Your task to perform on an android device: clear all cookies in the chrome app Image 0: 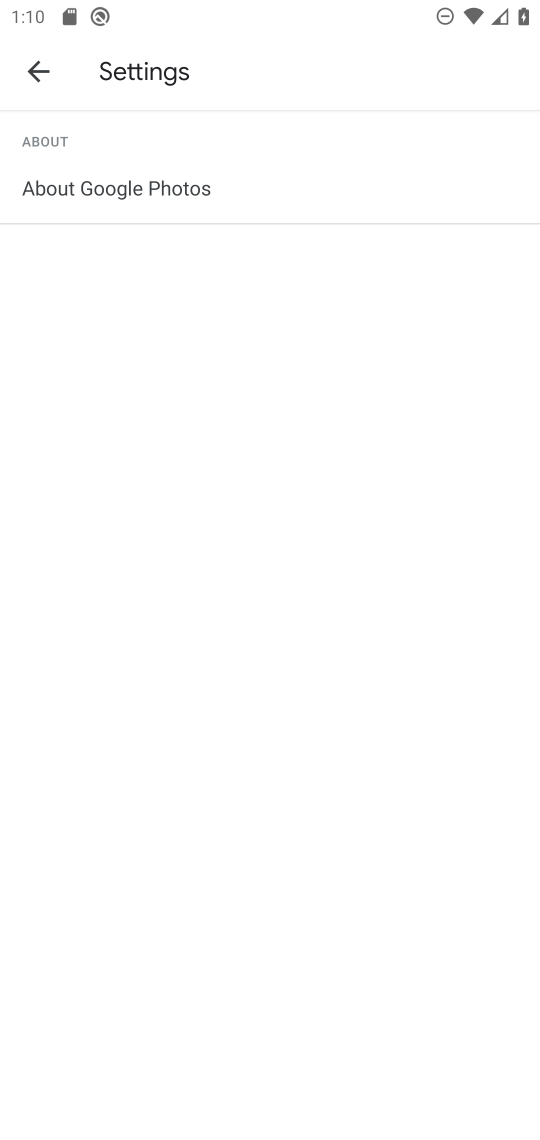
Step 0: press home button
Your task to perform on an android device: clear all cookies in the chrome app Image 1: 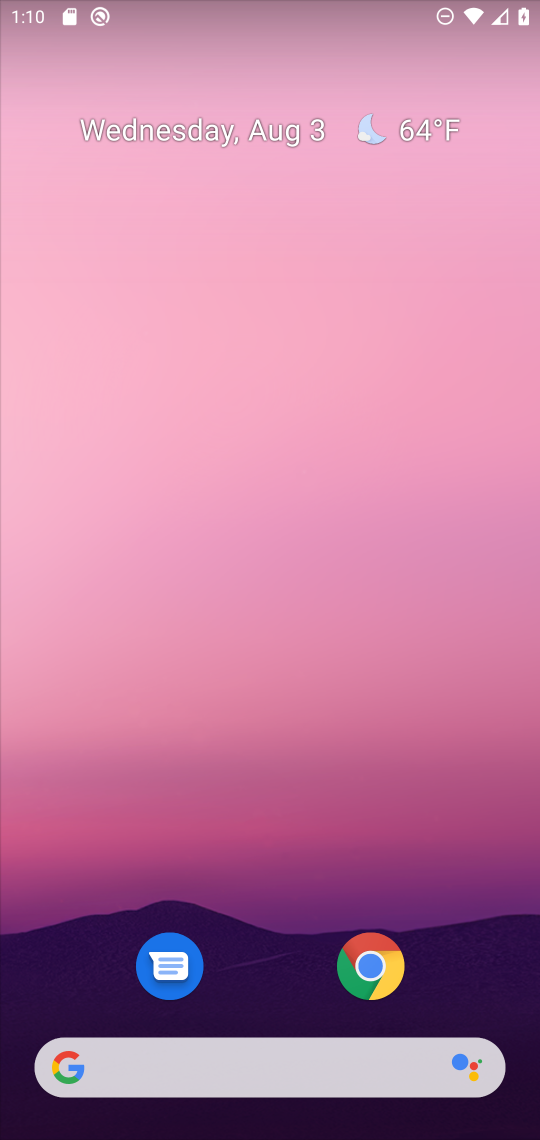
Step 1: click (333, 968)
Your task to perform on an android device: clear all cookies in the chrome app Image 2: 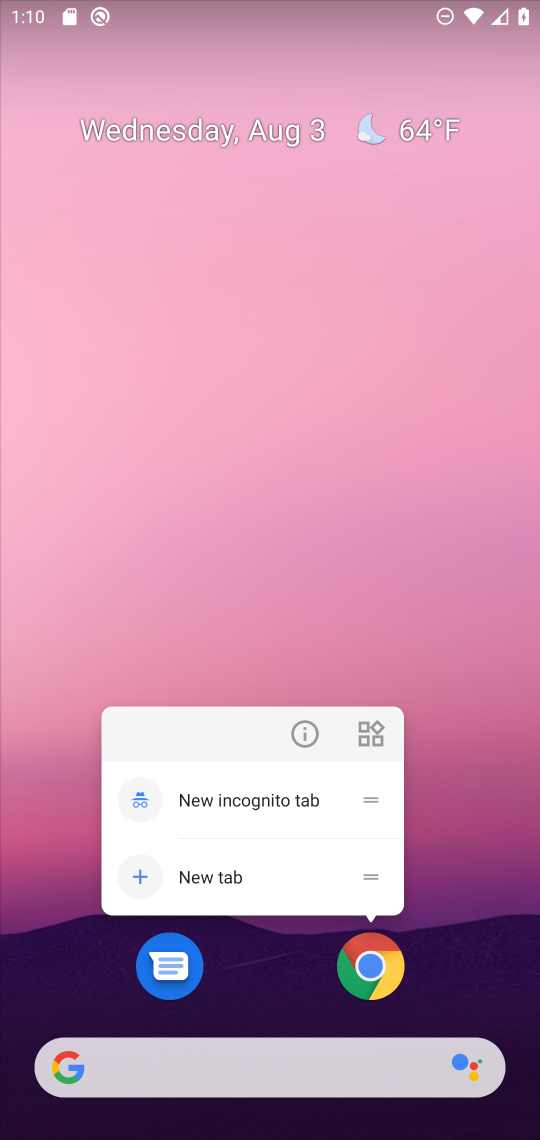
Step 2: click (333, 968)
Your task to perform on an android device: clear all cookies in the chrome app Image 3: 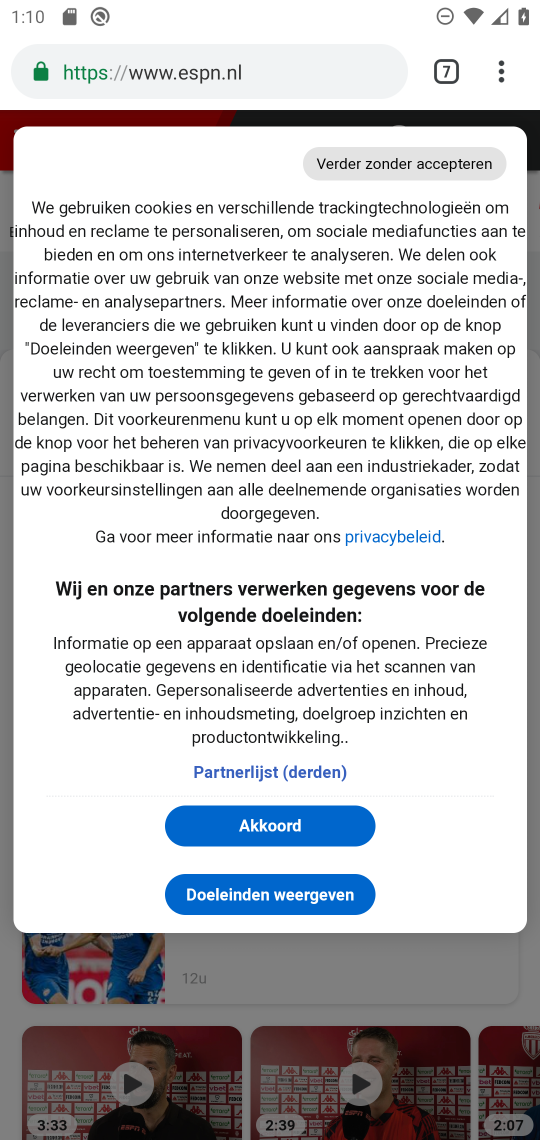
Step 3: click (488, 76)
Your task to perform on an android device: clear all cookies in the chrome app Image 4: 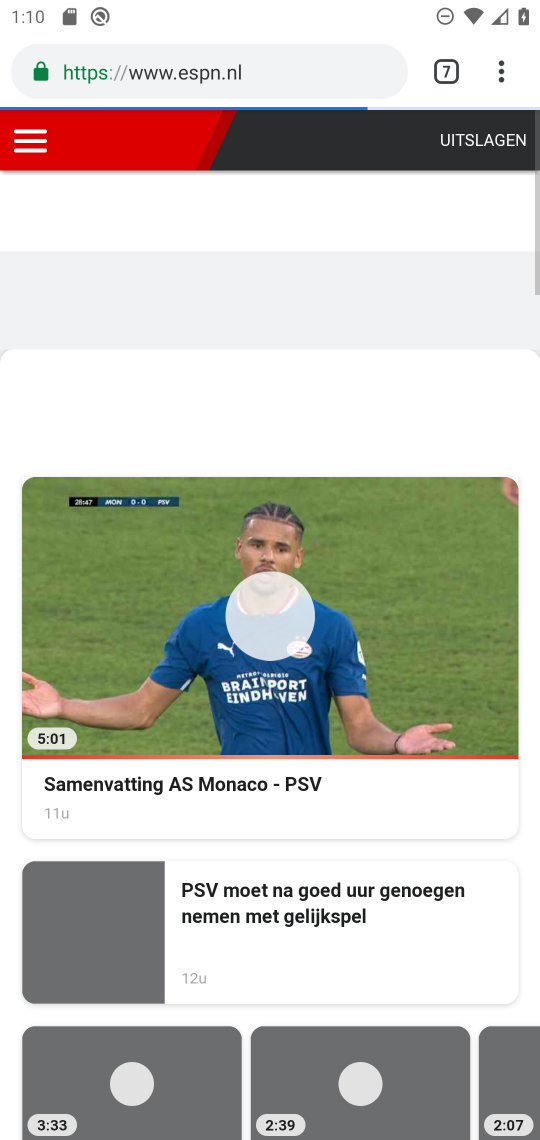
Step 4: click (511, 83)
Your task to perform on an android device: clear all cookies in the chrome app Image 5: 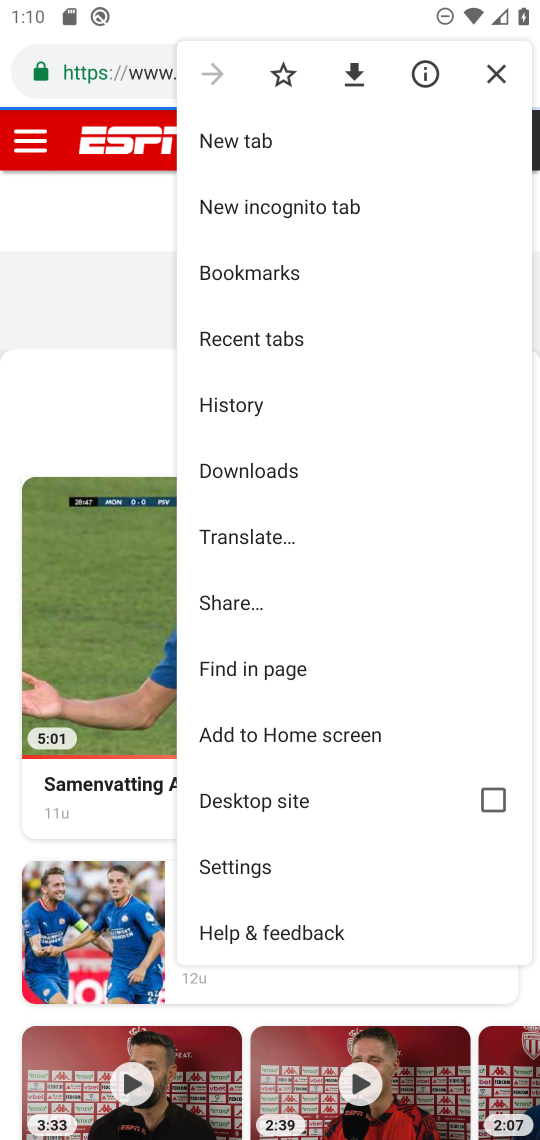
Step 5: click (287, 416)
Your task to perform on an android device: clear all cookies in the chrome app Image 6: 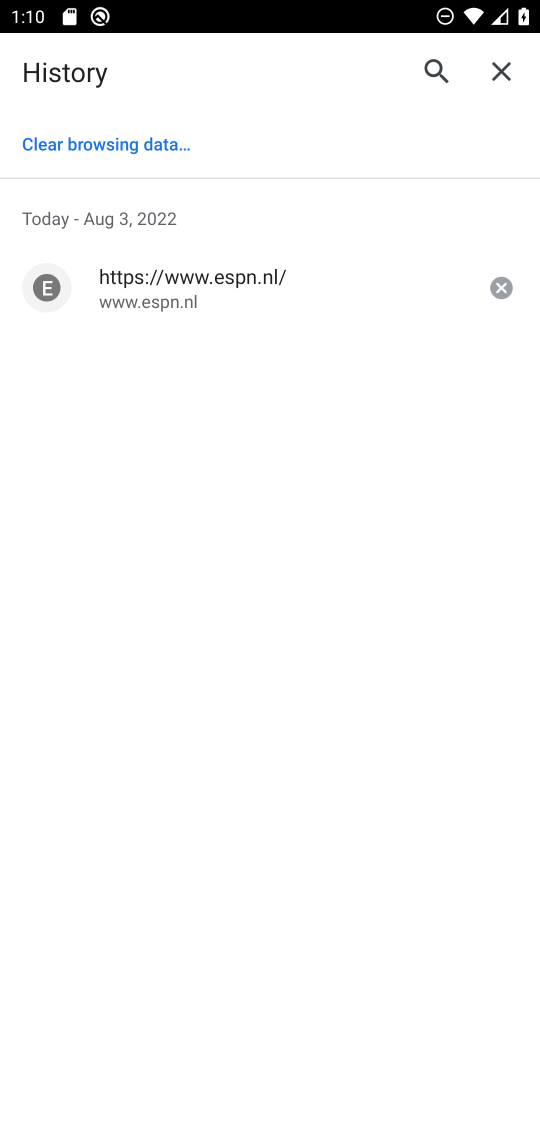
Step 6: click (90, 149)
Your task to perform on an android device: clear all cookies in the chrome app Image 7: 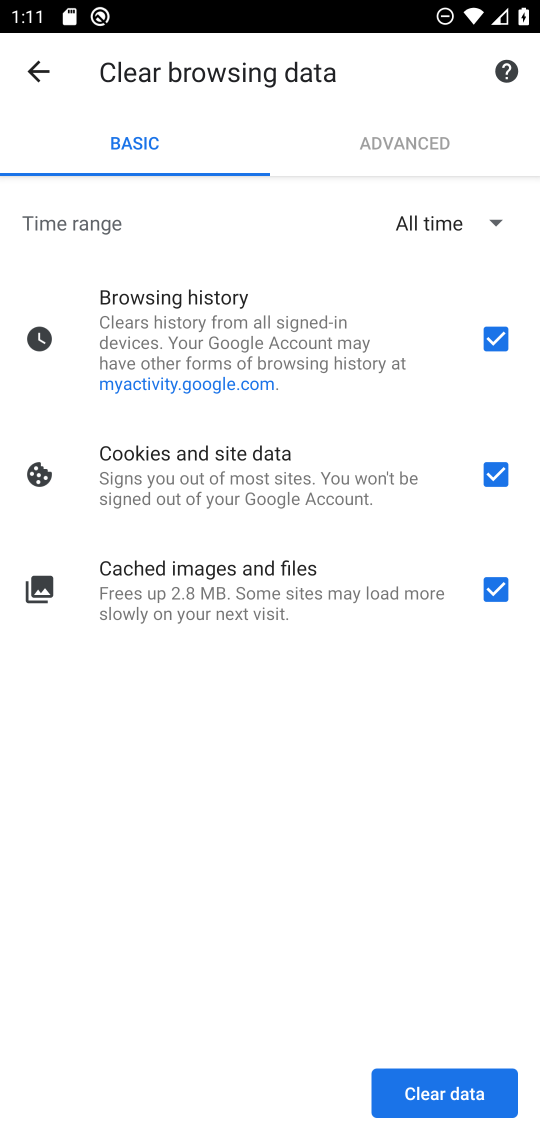
Step 7: click (470, 1081)
Your task to perform on an android device: clear all cookies in the chrome app Image 8: 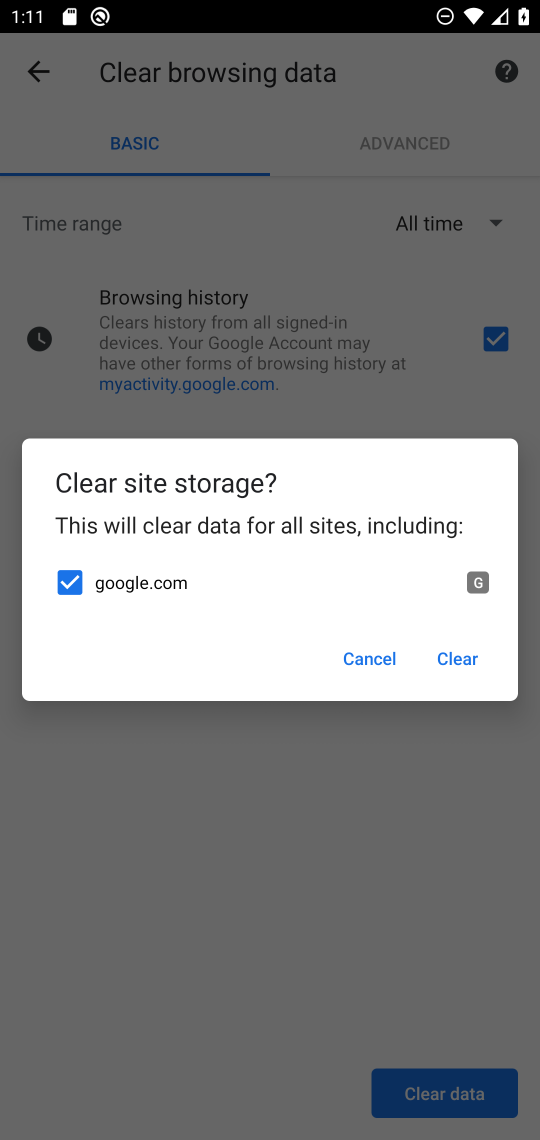
Step 8: click (454, 662)
Your task to perform on an android device: clear all cookies in the chrome app Image 9: 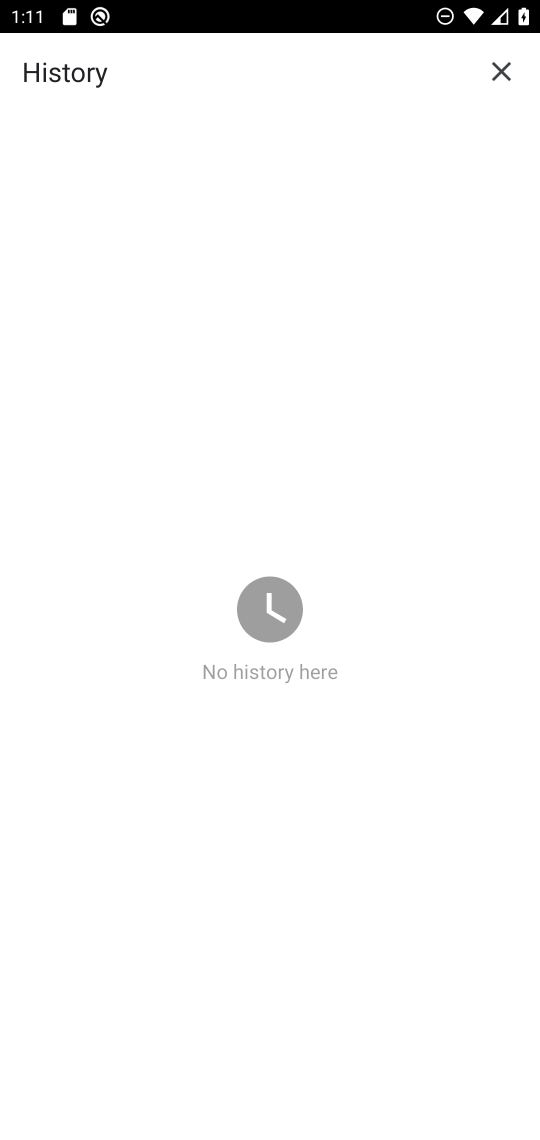
Step 9: task complete